Your task to perform on an android device: Open Yahoo.com Image 0: 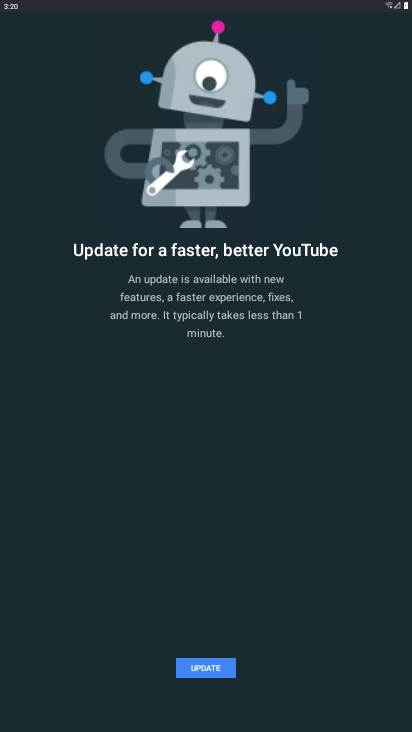
Step 0: press home button
Your task to perform on an android device: Open Yahoo.com Image 1: 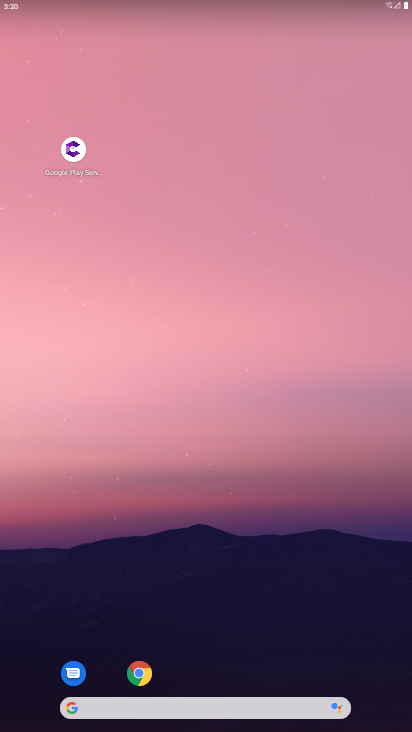
Step 1: drag from (198, 704) to (267, 181)
Your task to perform on an android device: Open Yahoo.com Image 2: 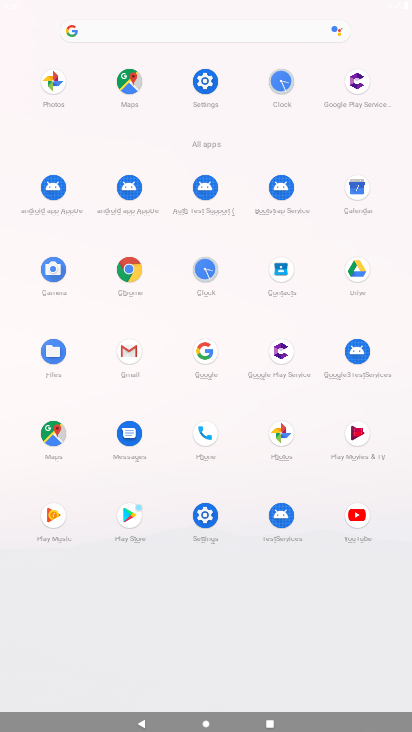
Step 2: click (133, 267)
Your task to perform on an android device: Open Yahoo.com Image 3: 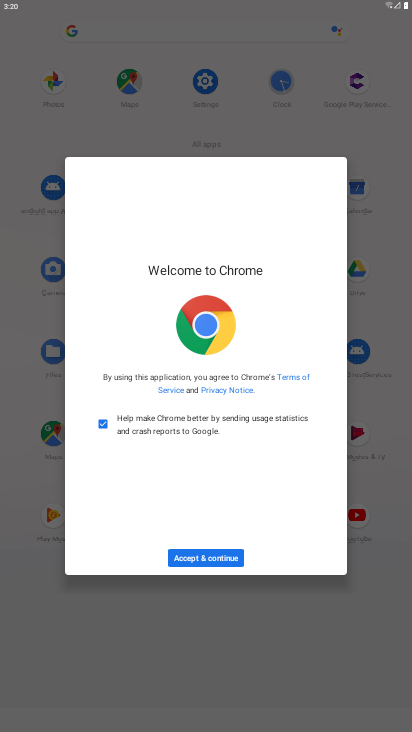
Step 3: click (197, 559)
Your task to perform on an android device: Open Yahoo.com Image 4: 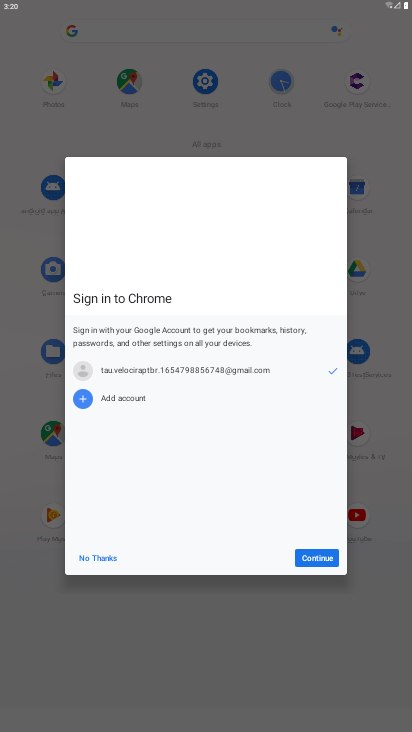
Step 4: click (325, 558)
Your task to perform on an android device: Open Yahoo.com Image 5: 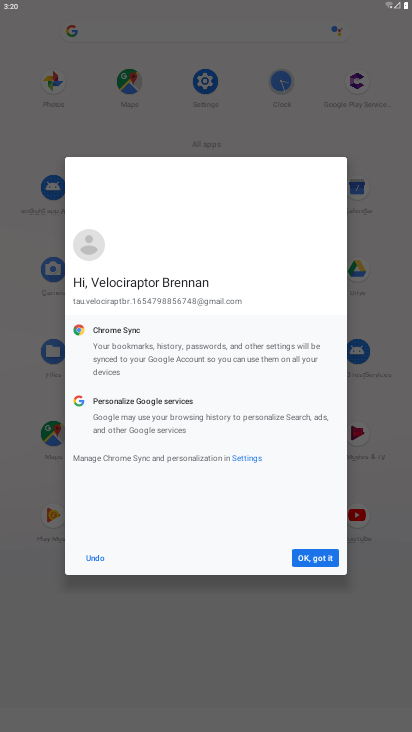
Step 5: click (325, 558)
Your task to perform on an android device: Open Yahoo.com Image 6: 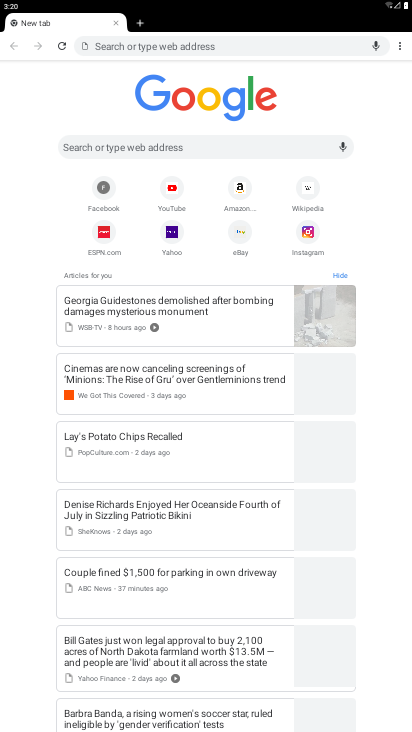
Step 6: click (177, 233)
Your task to perform on an android device: Open Yahoo.com Image 7: 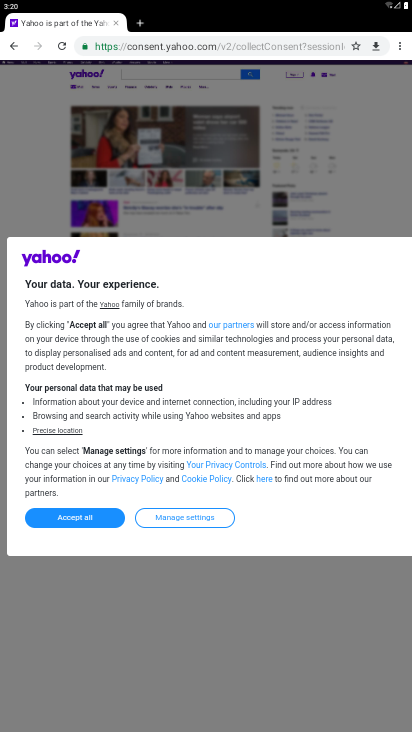
Step 7: click (78, 518)
Your task to perform on an android device: Open Yahoo.com Image 8: 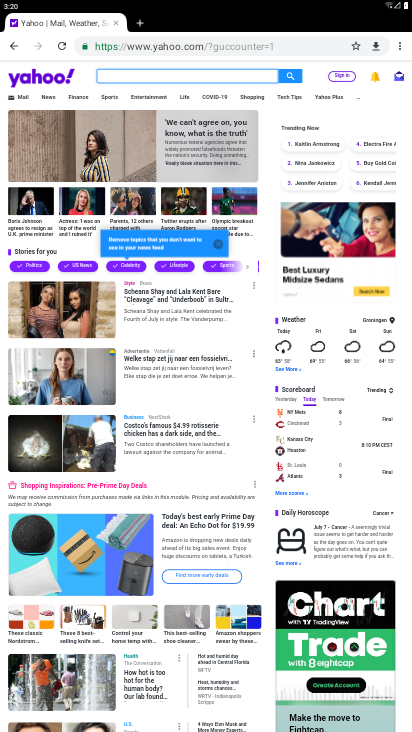
Step 8: task complete